Your task to perform on an android device: toggle pop-ups in chrome Image 0: 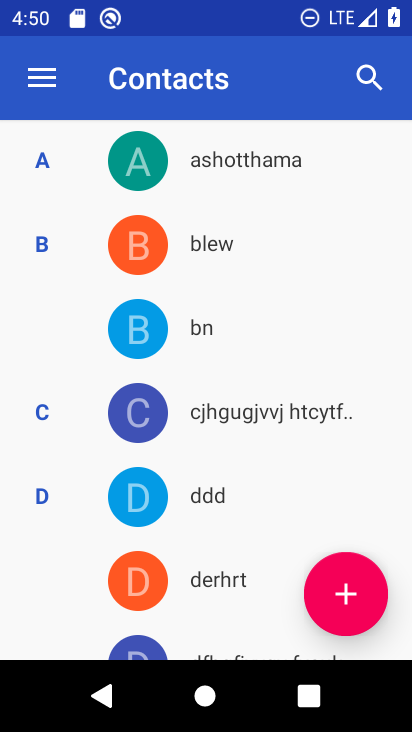
Step 0: press back button
Your task to perform on an android device: toggle pop-ups in chrome Image 1: 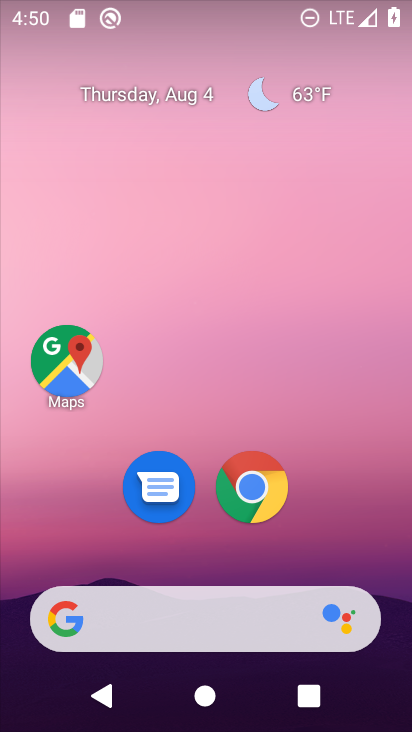
Step 1: click (240, 498)
Your task to perform on an android device: toggle pop-ups in chrome Image 2: 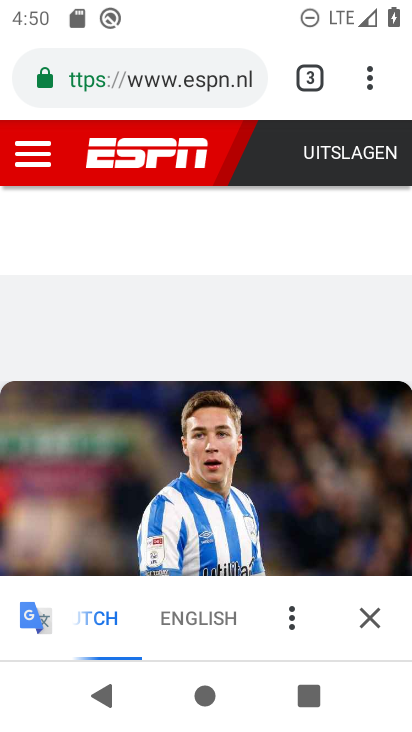
Step 2: drag from (368, 80) to (140, 534)
Your task to perform on an android device: toggle pop-ups in chrome Image 3: 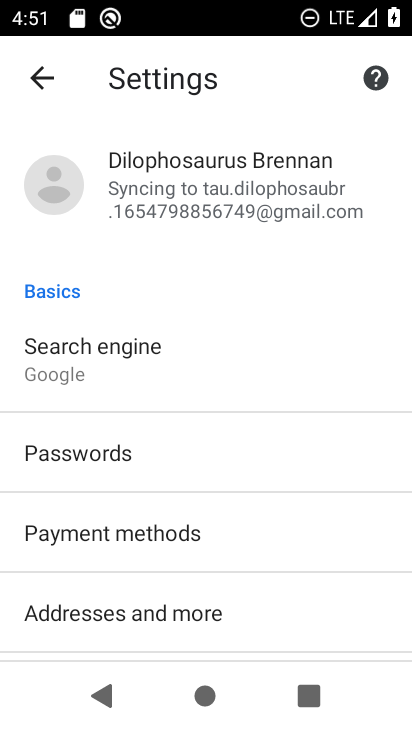
Step 3: drag from (118, 523) to (293, 12)
Your task to perform on an android device: toggle pop-ups in chrome Image 4: 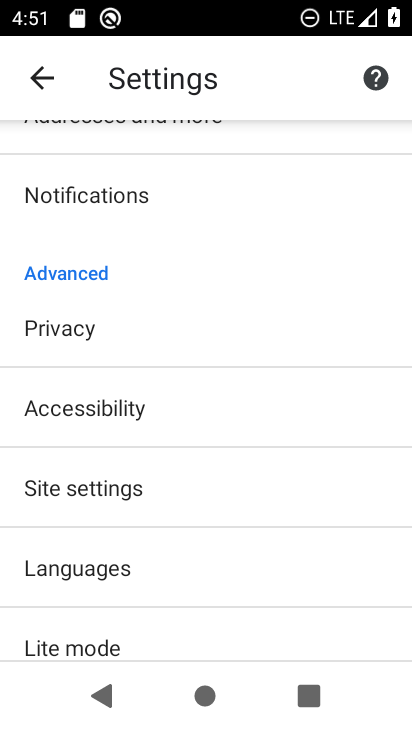
Step 4: click (111, 487)
Your task to perform on an android device: toggle pop-ups in chrome Image 5: 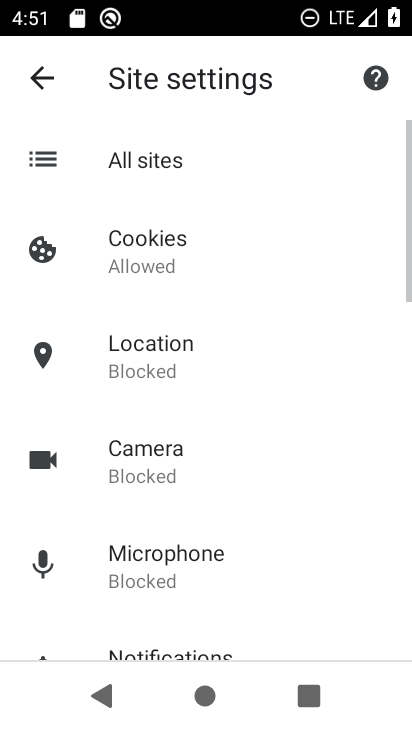
Step 5: drag from (167, 601) to (259, 89)
Your task to perform on an android device: toggle pop-ups in chrome Image 6: 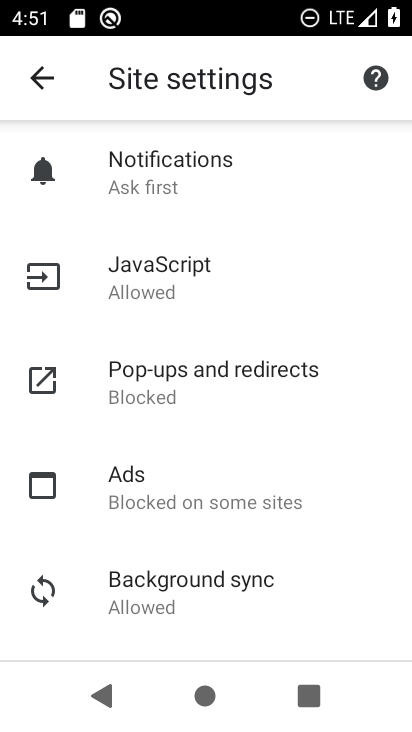
Step 6: click (190, 388)
Your task to perform on an android device: toggle pop-ups in chrome Image 7: 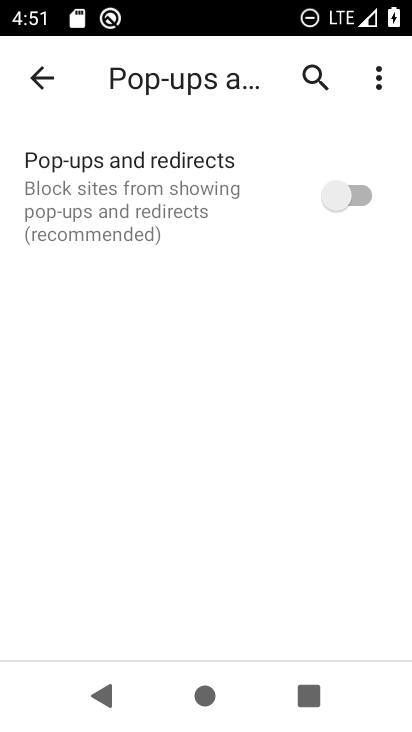
Step 7: click (360, 196)
Your task to perform on an android device: toggle pop-ups in chrome Image 8: 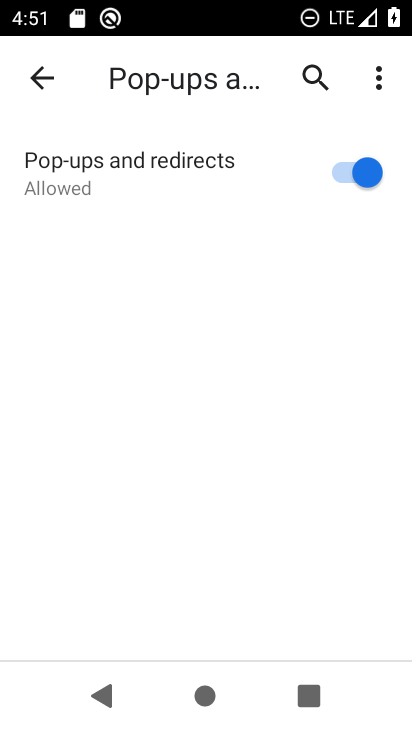
Step 8: task complete